Your task to perform on an android device: What's the weather going to be tomorrow? Image 0: 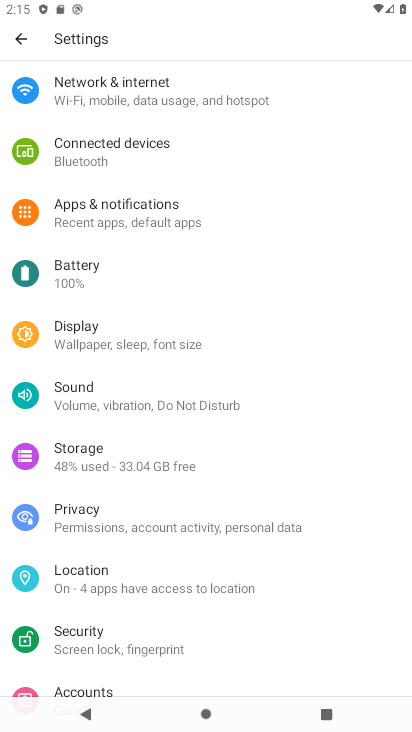
Step 0: press home button
Your task to perform on an android device: What's the weather going to be tomorrow? Image 1: 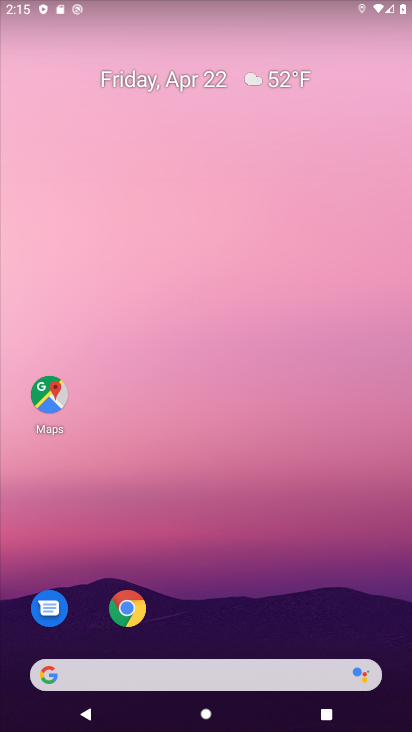
Step 1: click (287, 76)
Your task to perform on an android device: What's the weather going to be tomorrow? Image 2: 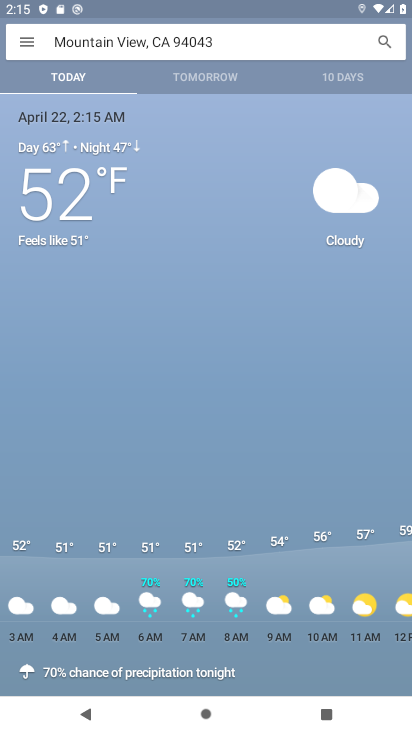
Step 2: click (199, 76)
Your task to perform on an android device: What's the weather going to be tomorrow? Image 3: 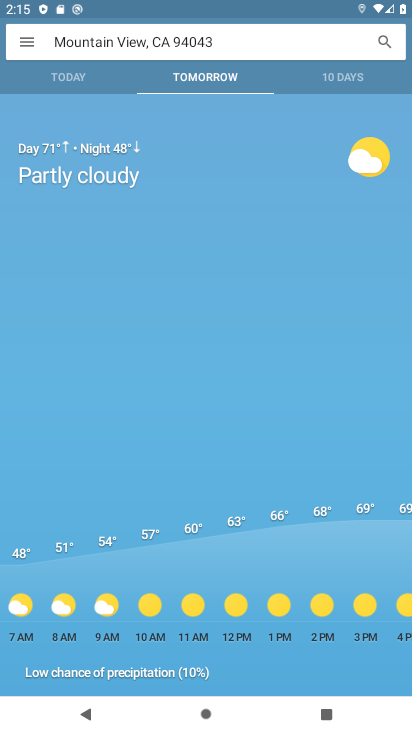
Step 3: task complete